Your task to perform on an android device: Empty the shopping cart on amazon.com. Search for razer naga on amazon.com, select the first entry, and add it to the cart. Image 0: 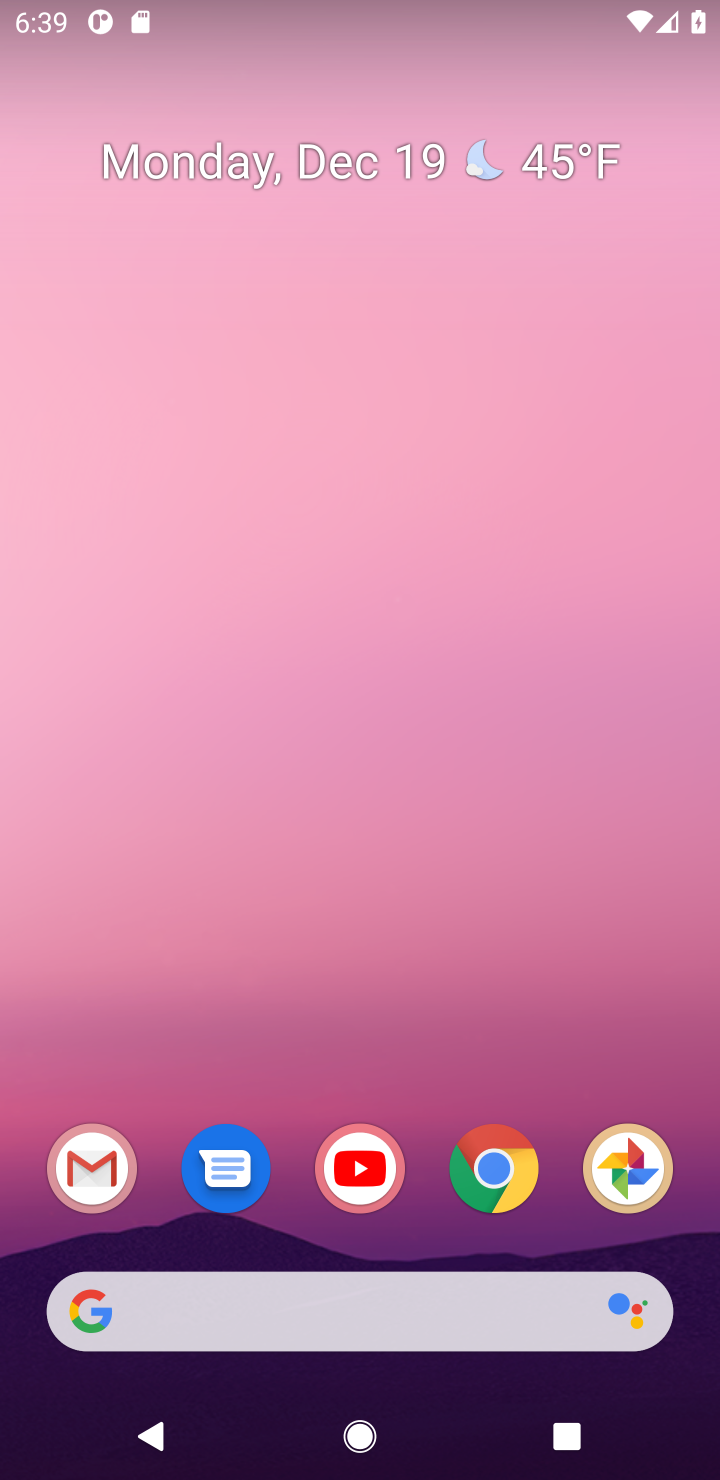
Step 0: click (497, 1179)
Your task to perform on an android device: Empty the shopping cart on amazon.com. Search for razer naga on amazon.com, select the first entry, and add it to the cart. Image 1: 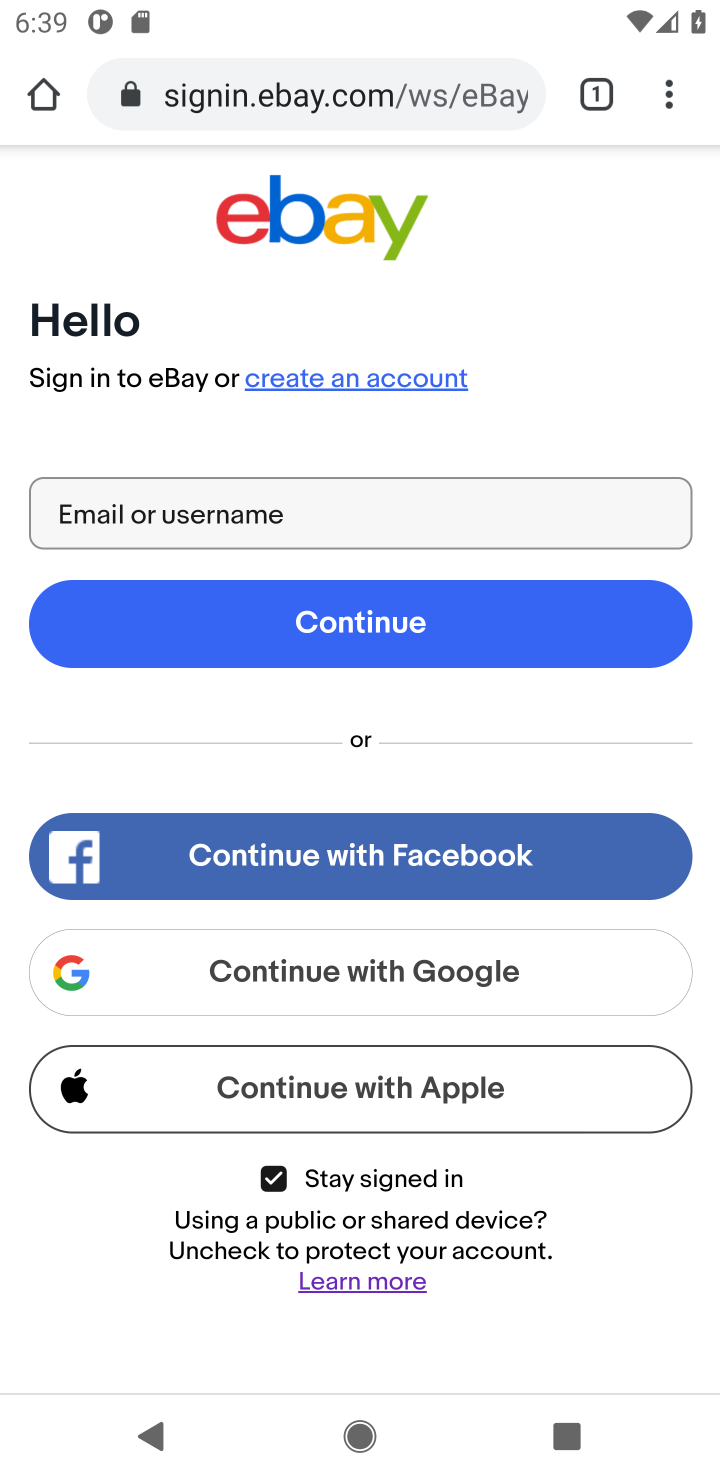
Step 1: click (226, 90)
Your task to perform on an android device: Empty the shopping cart on amazon.com. Search for razer naga on amazon.com, select the first entry, and add it to the cart. Image 2: 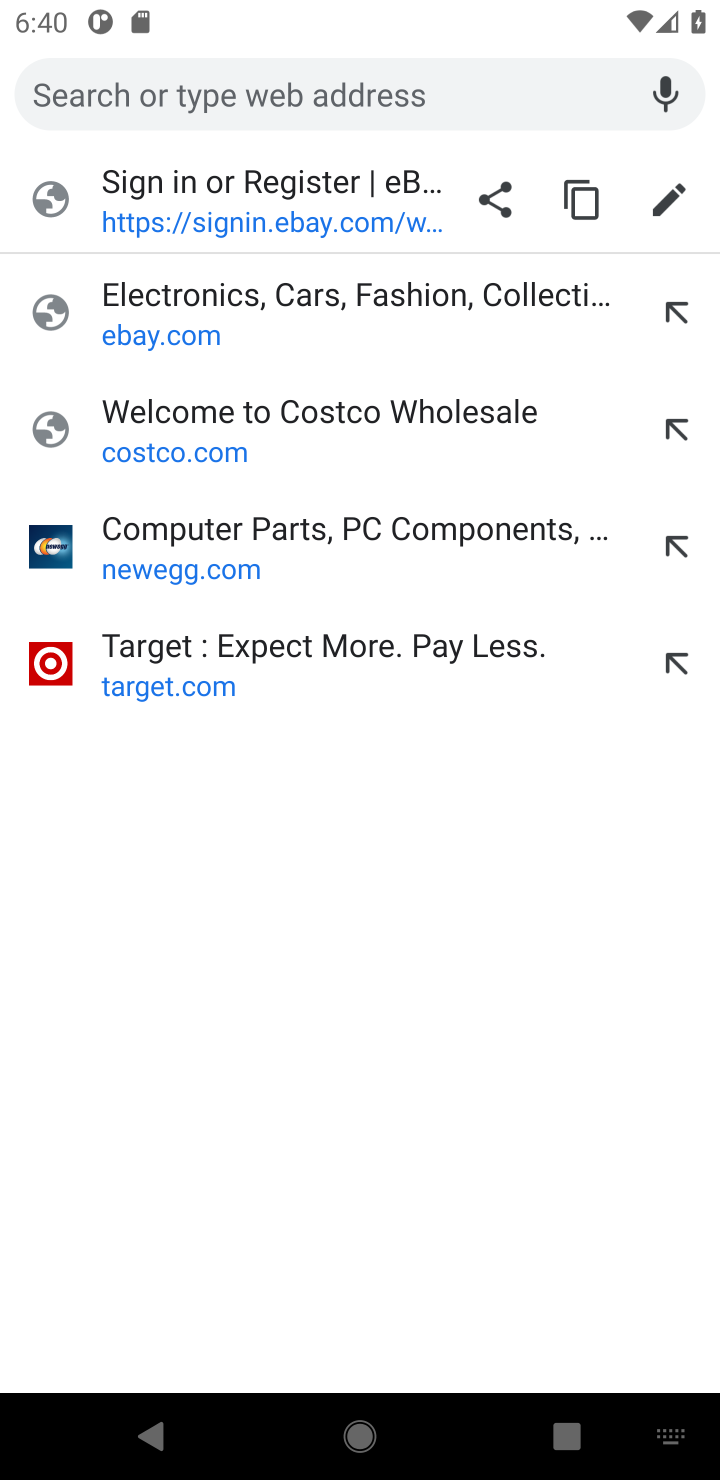
Step 2: type "amazon.com"
Your task to perform on an android device: Empty the shopping cart on amazon.com. Search for razer naga on amazon.com, select the first entry, and add it to the cart. Image 3: 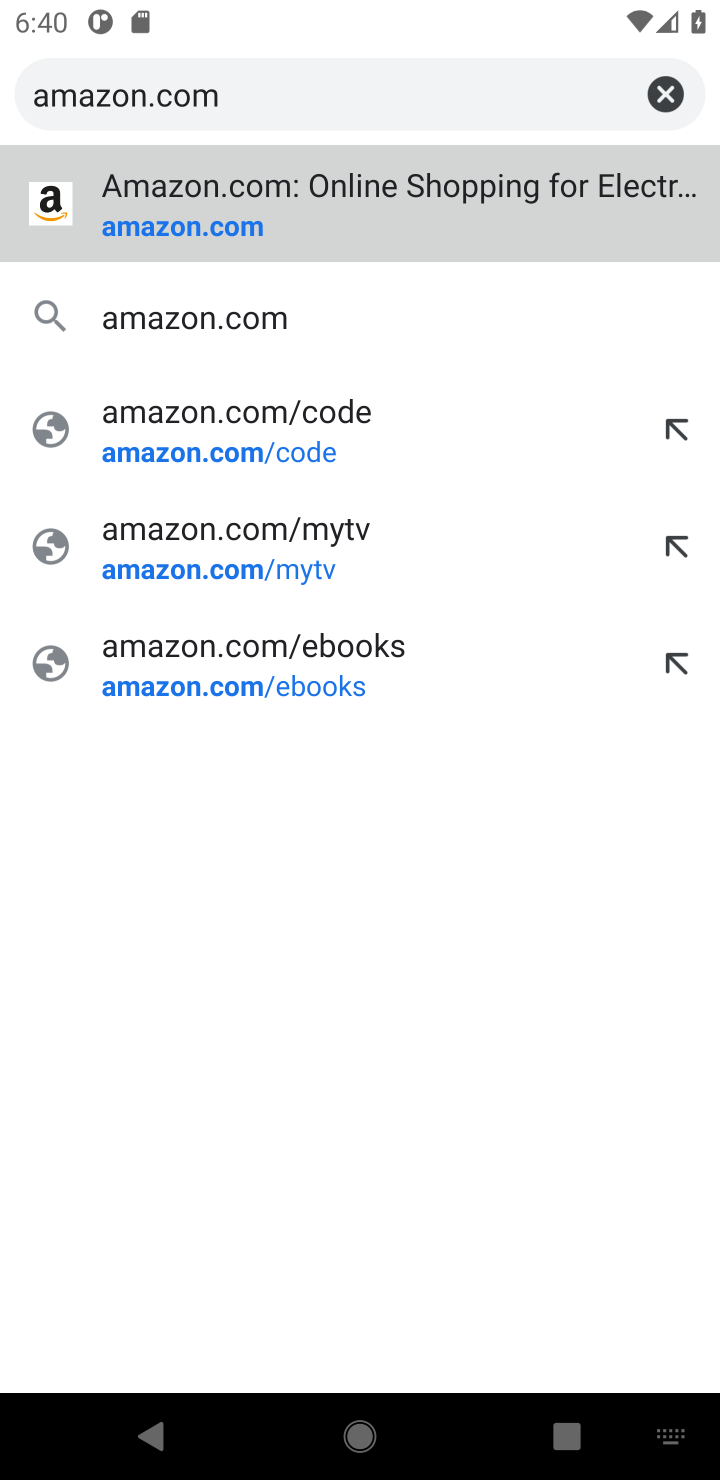
Step 3: click (147, 232)
Your task to perform on an android device: Empty the shopping cart on amazon.com. Search for razer naga on amazon.com, select the first entry, and add it to the cart. Image 4: 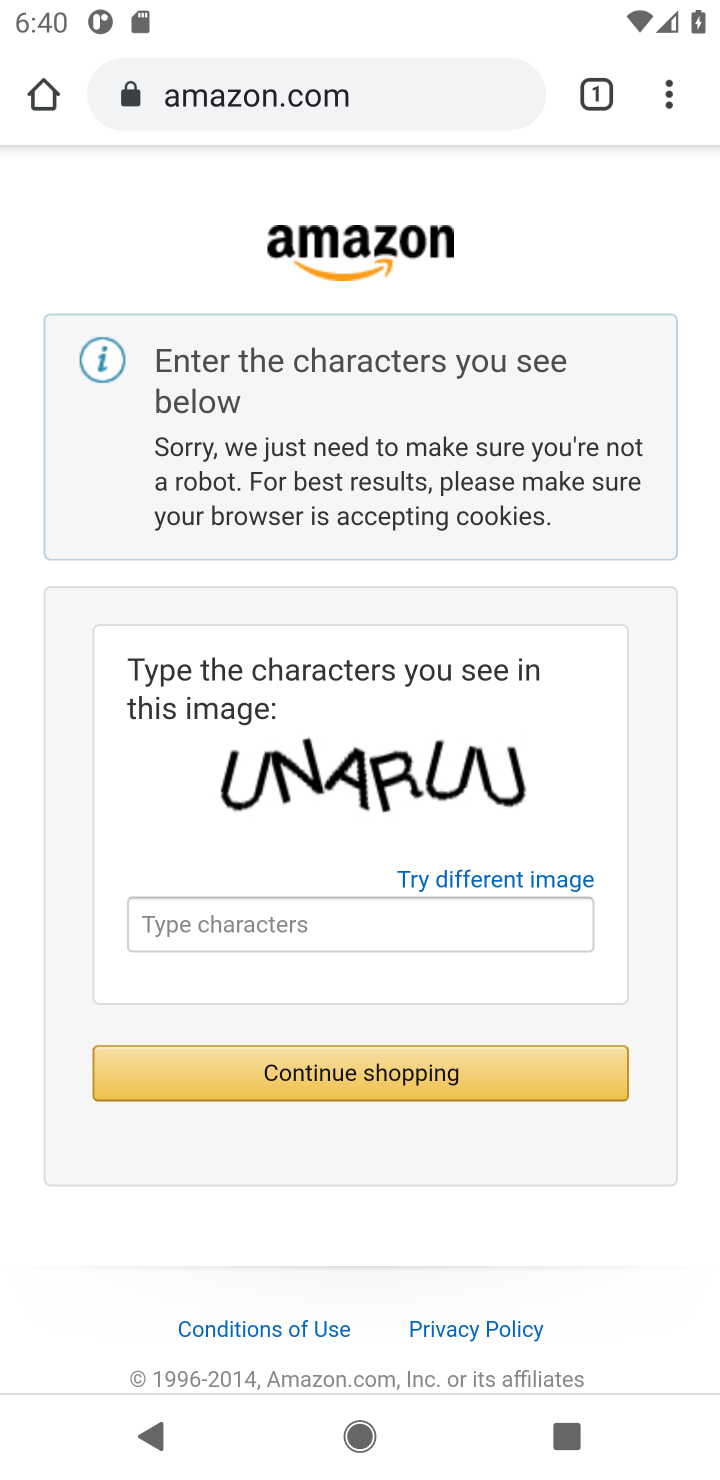
Step 4: click (228, 920)
Your task to perform on an android device: Empty the shopping cart on amazon.com. Search for razer naga on amazon.com, select the first entry, and add it to the cart. Image 5: 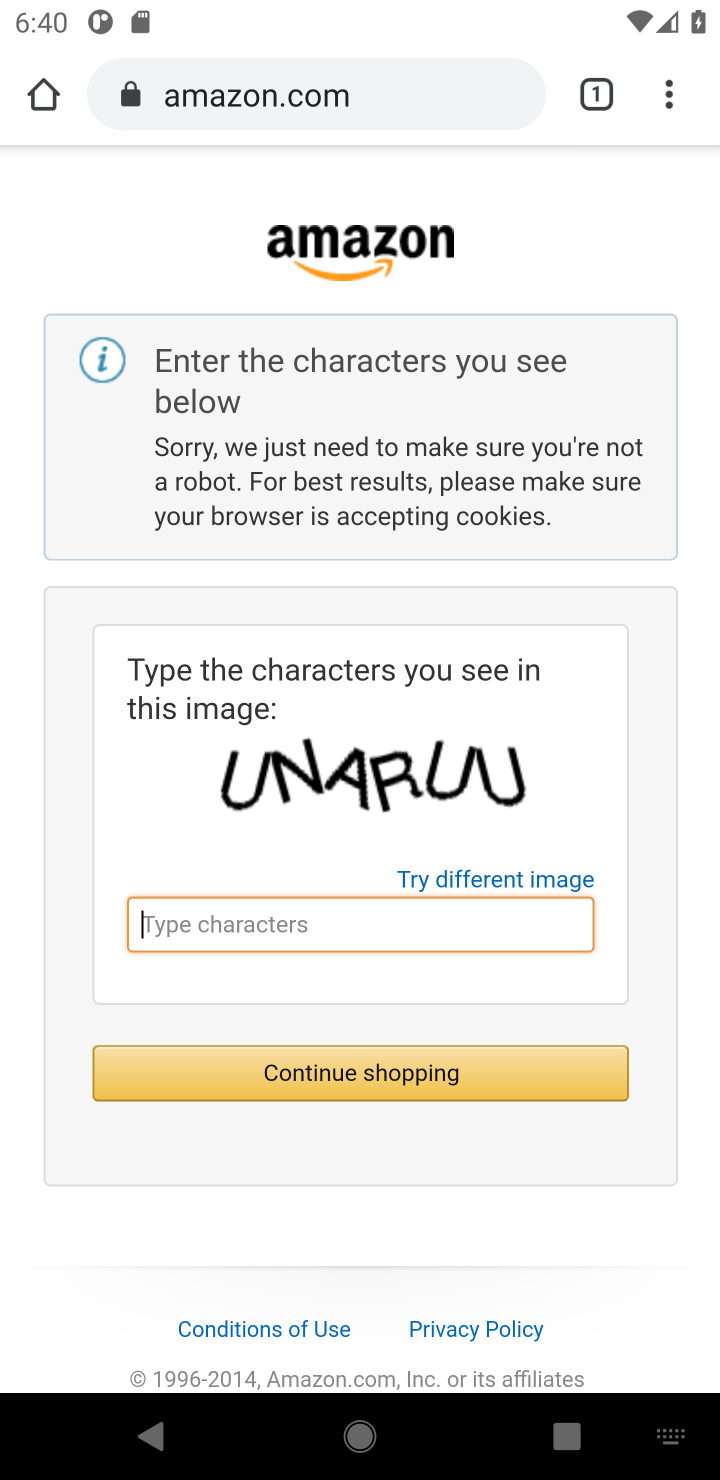
Step 5: type "UNARUU"
Your task to perform on an android device: Empty the shopping cart on amazon.com. Search for razer naga on amazon.com, select the first entry, and add it to the cart. Image 6: 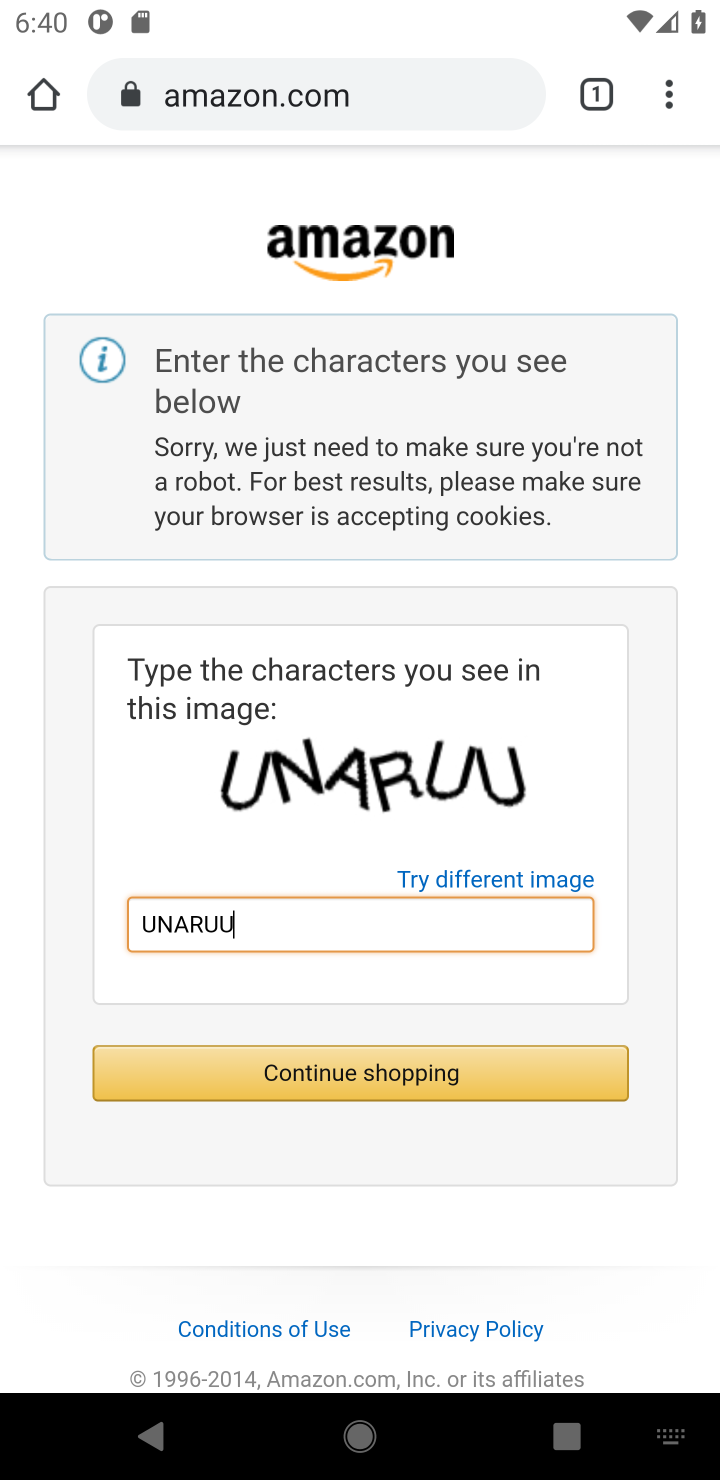
Step 6: click (290, 1069)
Your task to perform on an android device: Empty the shopping cart on amazon.com. Search for razer naga on amazon.com, select the first entry, and add it to the cart. Image 7: 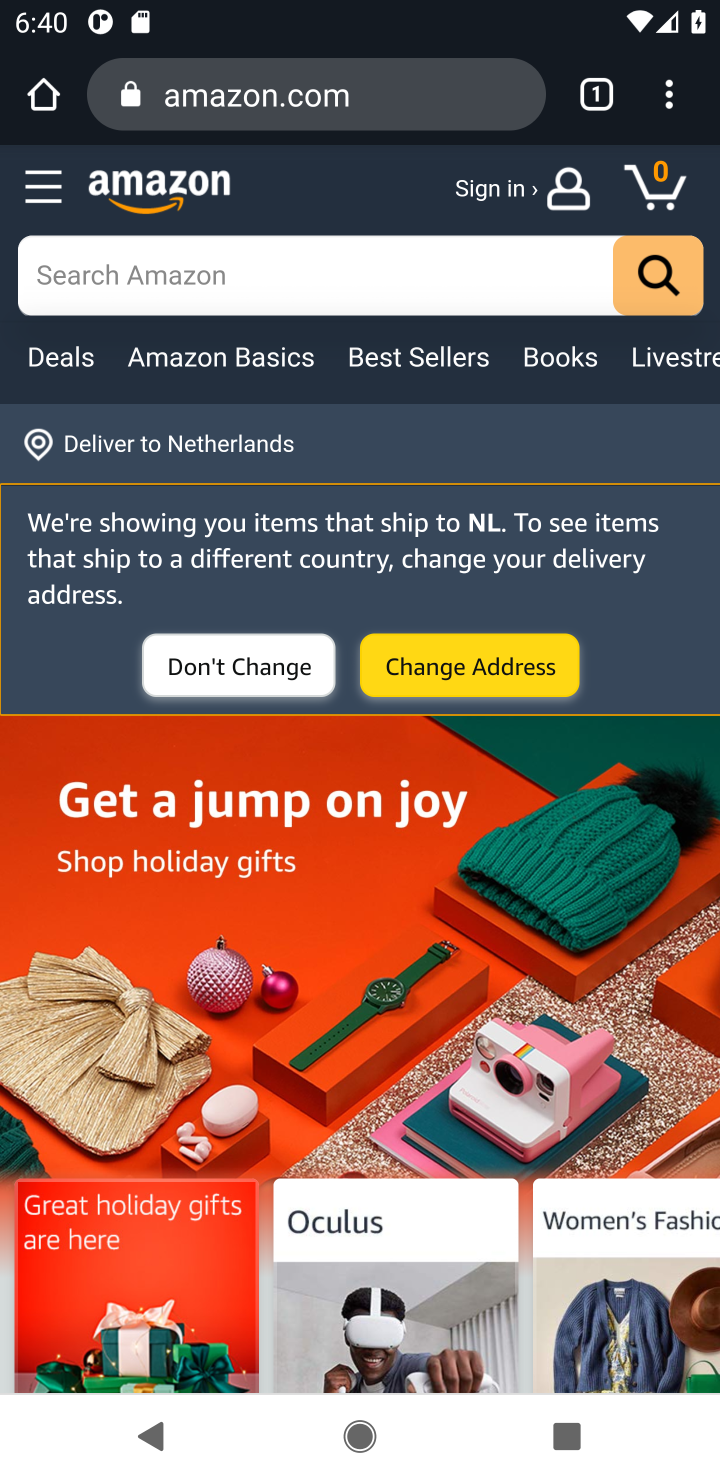
Step 7: click (658, 196)
Your task to perform on an android device: Empty the shopping cart on amazon.com. Search for razer naga on amazon.com, select the first entry, and add it to the cart. Image 8: 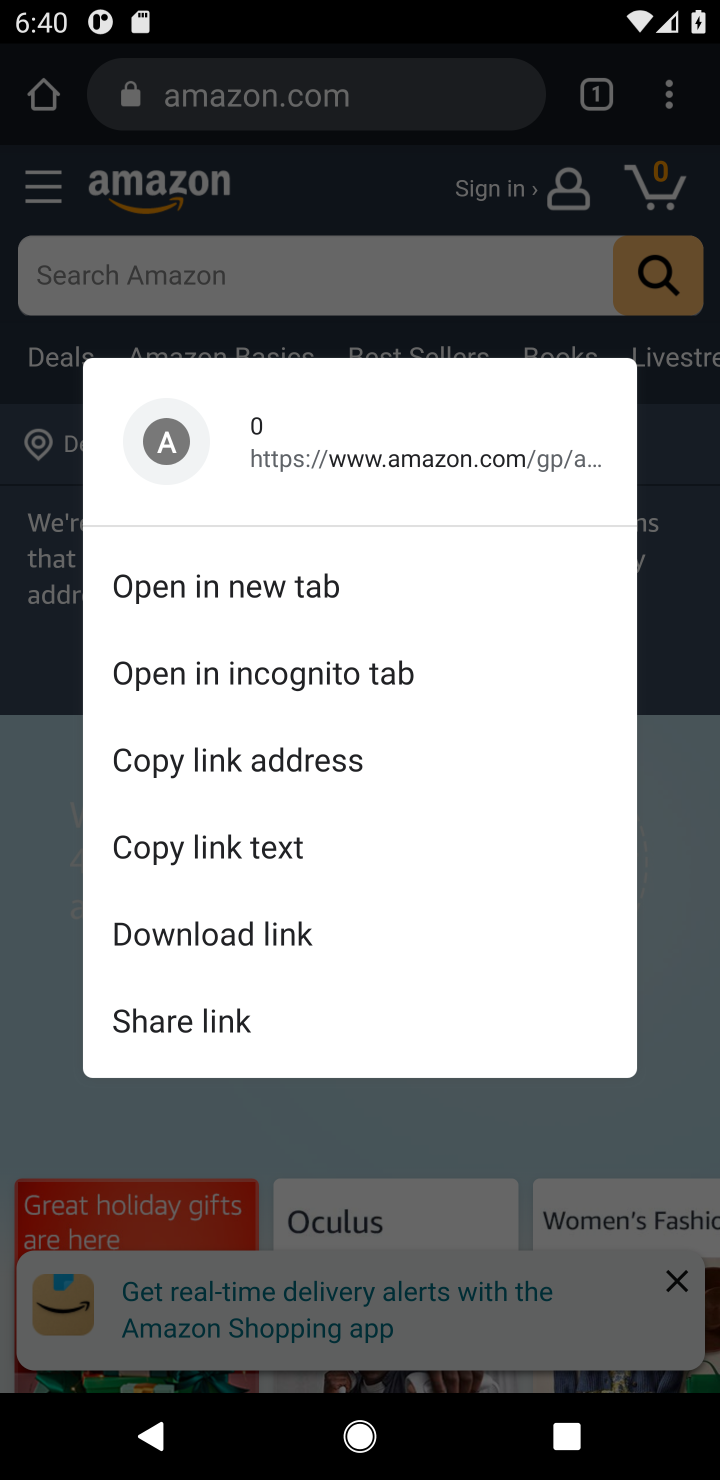
Step 8: click (661, 197)
Your task to perform on an android device: Empty the shopping cart on amazon.com. Search for razer naga on amazon.com, select the first entry, and add it to the cart. Image 9: 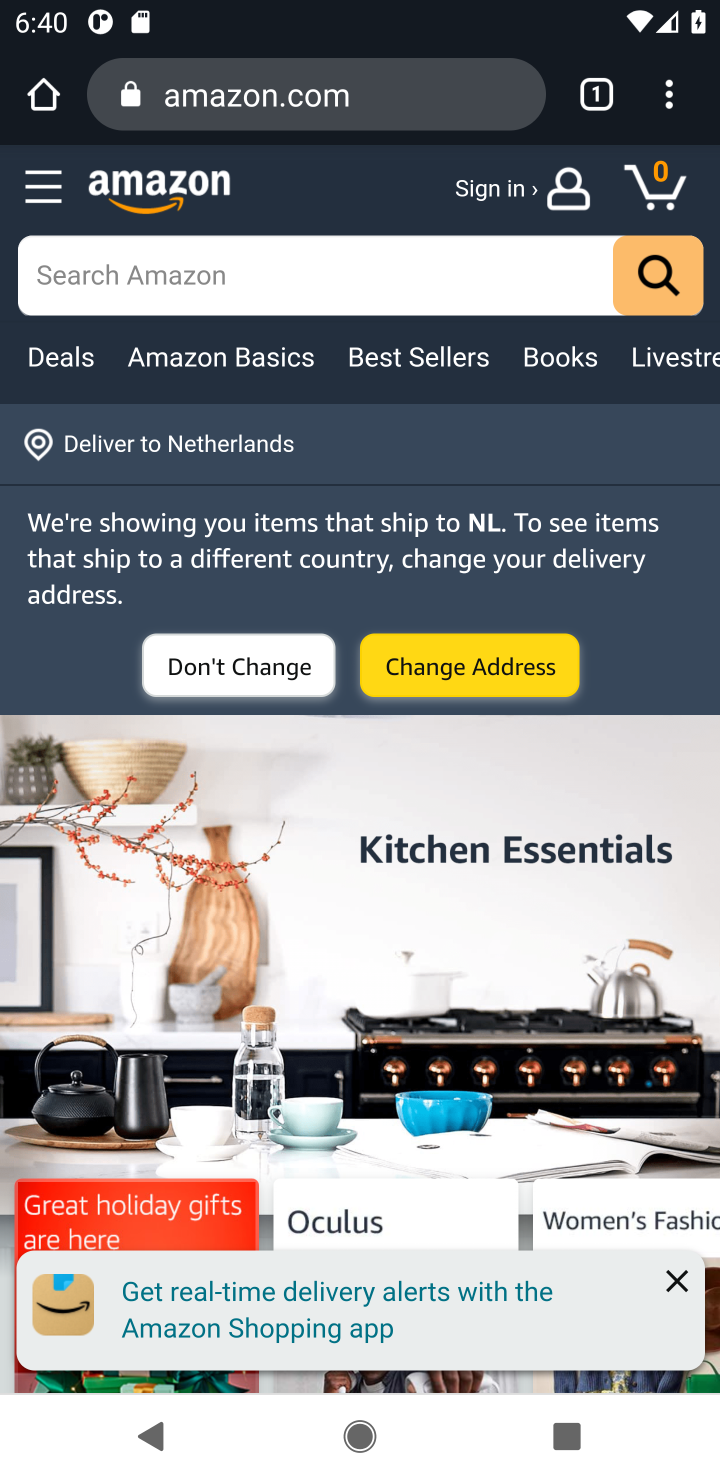
Step 9: click (661, 197)
Your task to perform on an android device: Empty the shopping cart on amazon.com. Search for razer naga on amazon.com, select the first entry, and add it to the cart. Image 10: 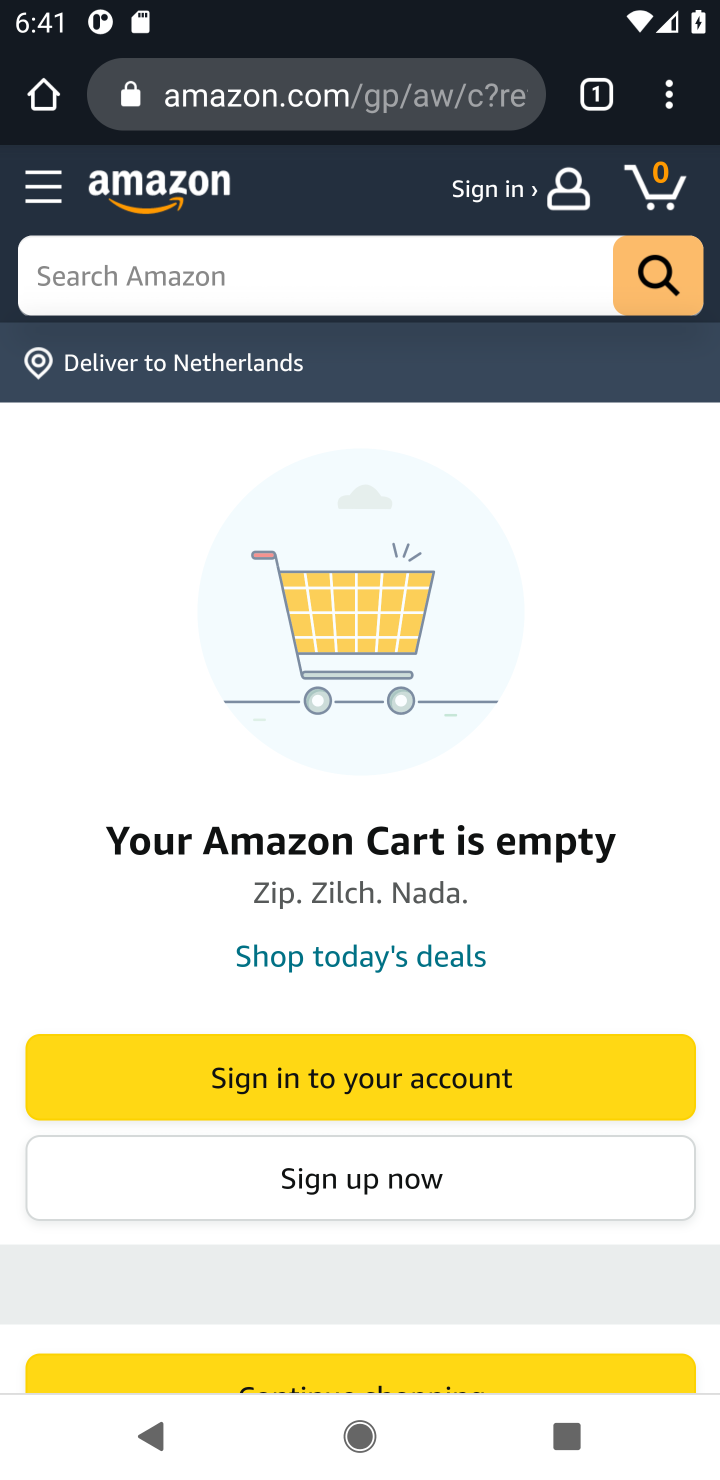
Step 10: click (162, 289)
Your task to perform on an android device: Empty the shopping cart on amazon.com. Search for razer naga on amazon.com, select the first entry, and add it to the cart. Image 11: 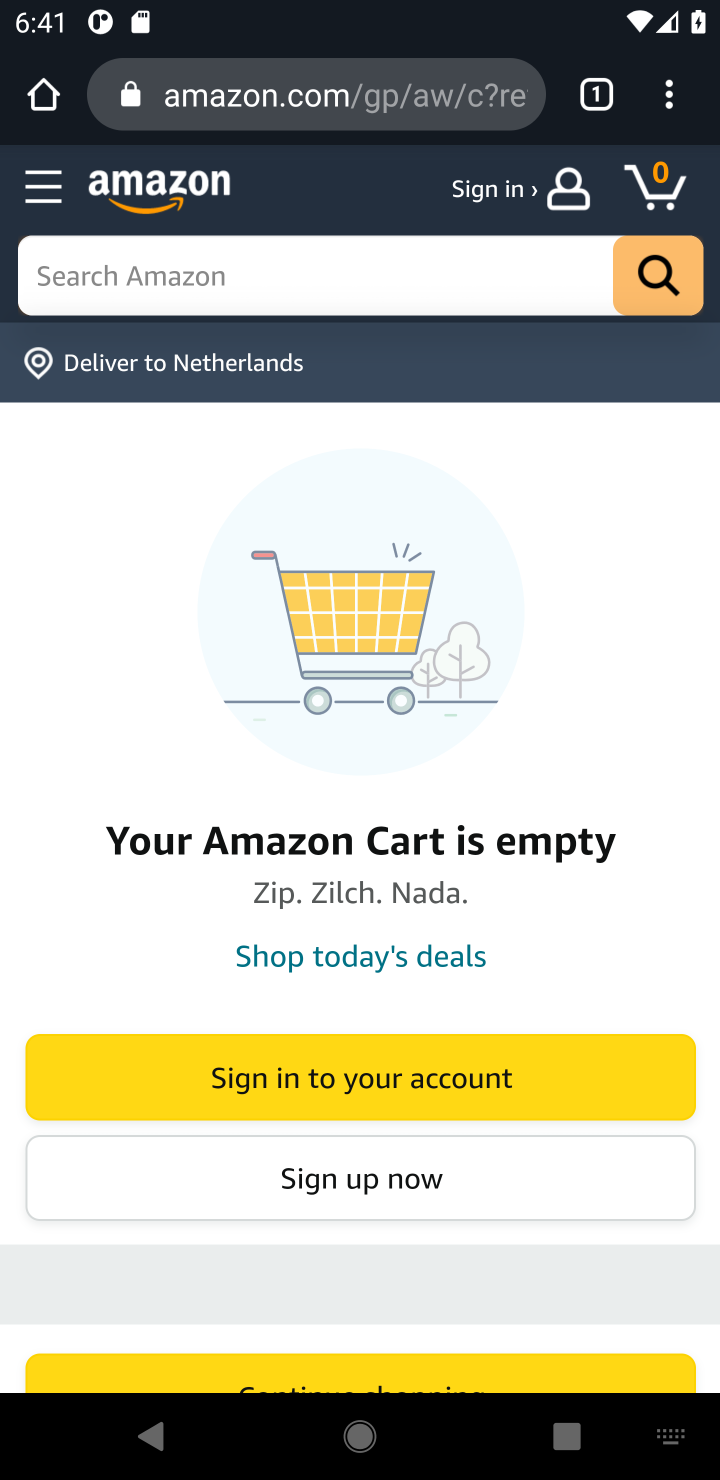
Step 11: type "razer naga"
Your task to perform on an android device: Empty the shopping cart on amazon.com. Search for razer naga on amazon.com, select the first entry, and add it to the cart. Image 12: 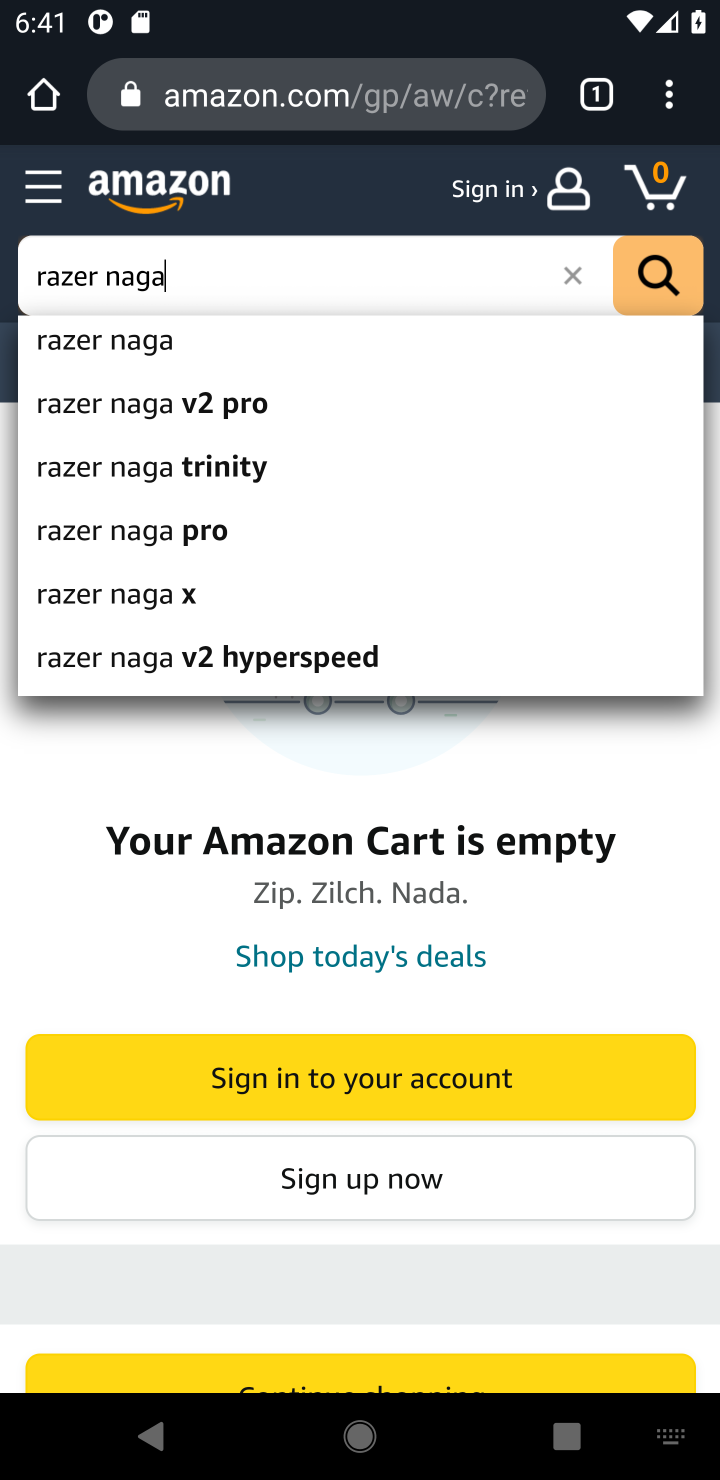
Step 12: click (667, 279)
Your task to perform on an android device: Empty the shopping cart on amazon.com. Search for razer naga on amazon.com, select the first entry, and add it to the cart. Image 13: 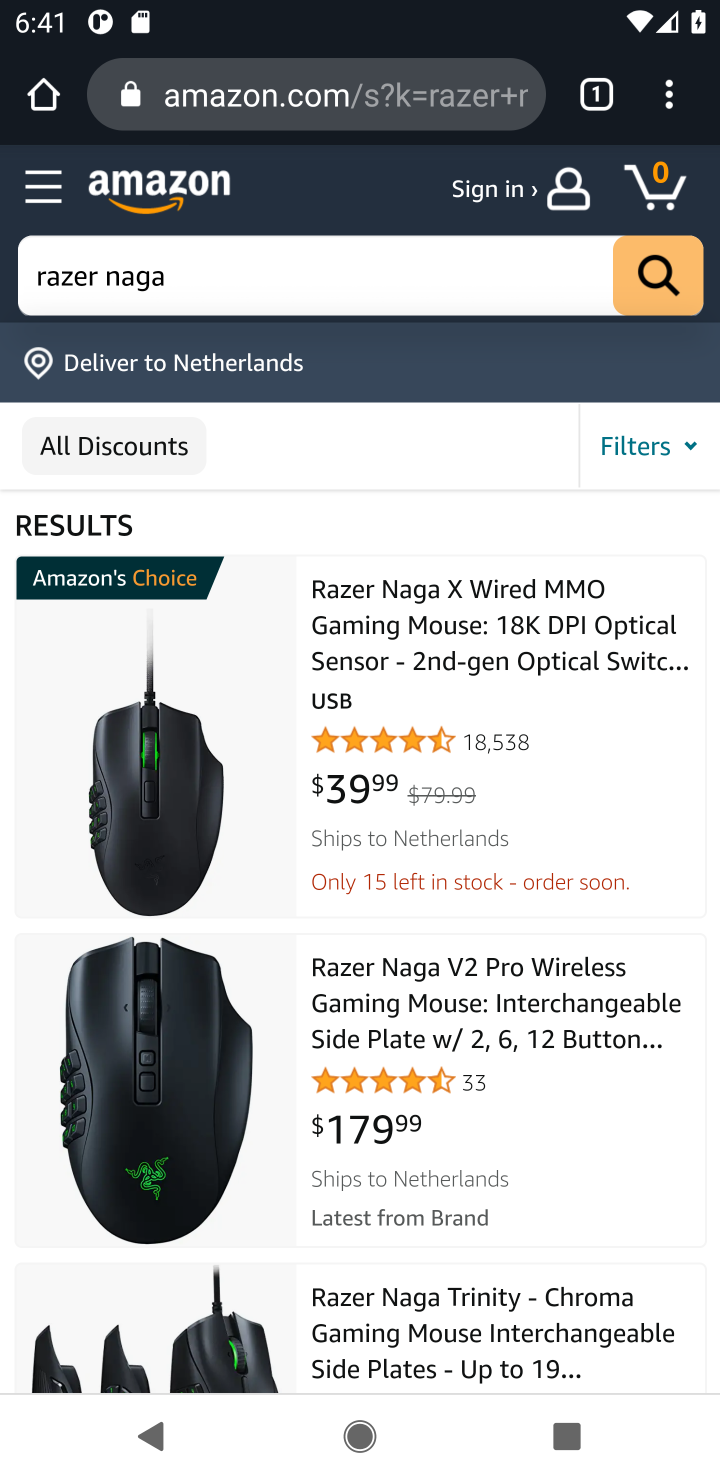
Step 13: click (393, 642)
Your task to perform on an android device: Empty the shopping cart on amazon.com. Search for razer naga on amazon.com, select the first entry, and add it to the cart. Image 14: 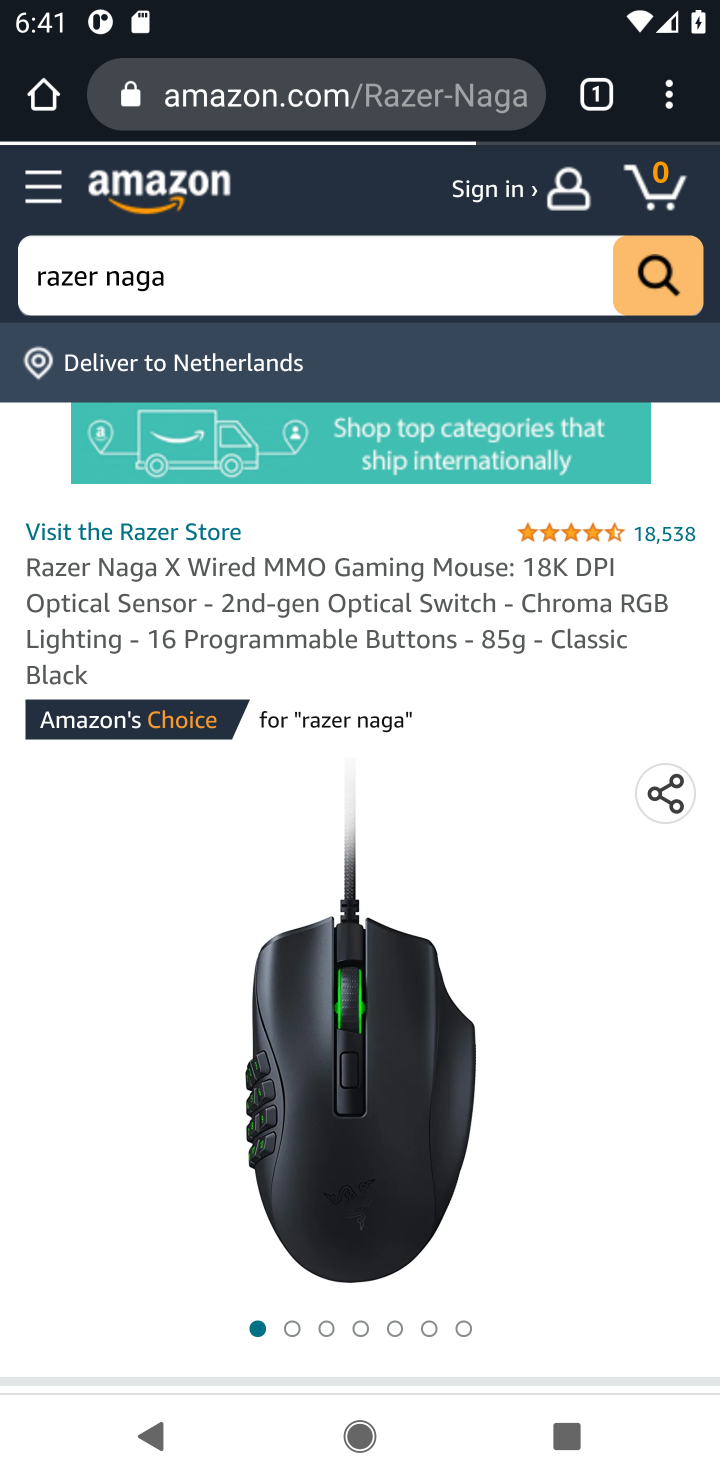
Step 14: drag from (325, 926) to (336, 446)
Your task to perform on an android device: Empty the shopping cart on amazon.com. Search for razer naga on amazon.com, select the first entry, and add it to the cart. Image 15: 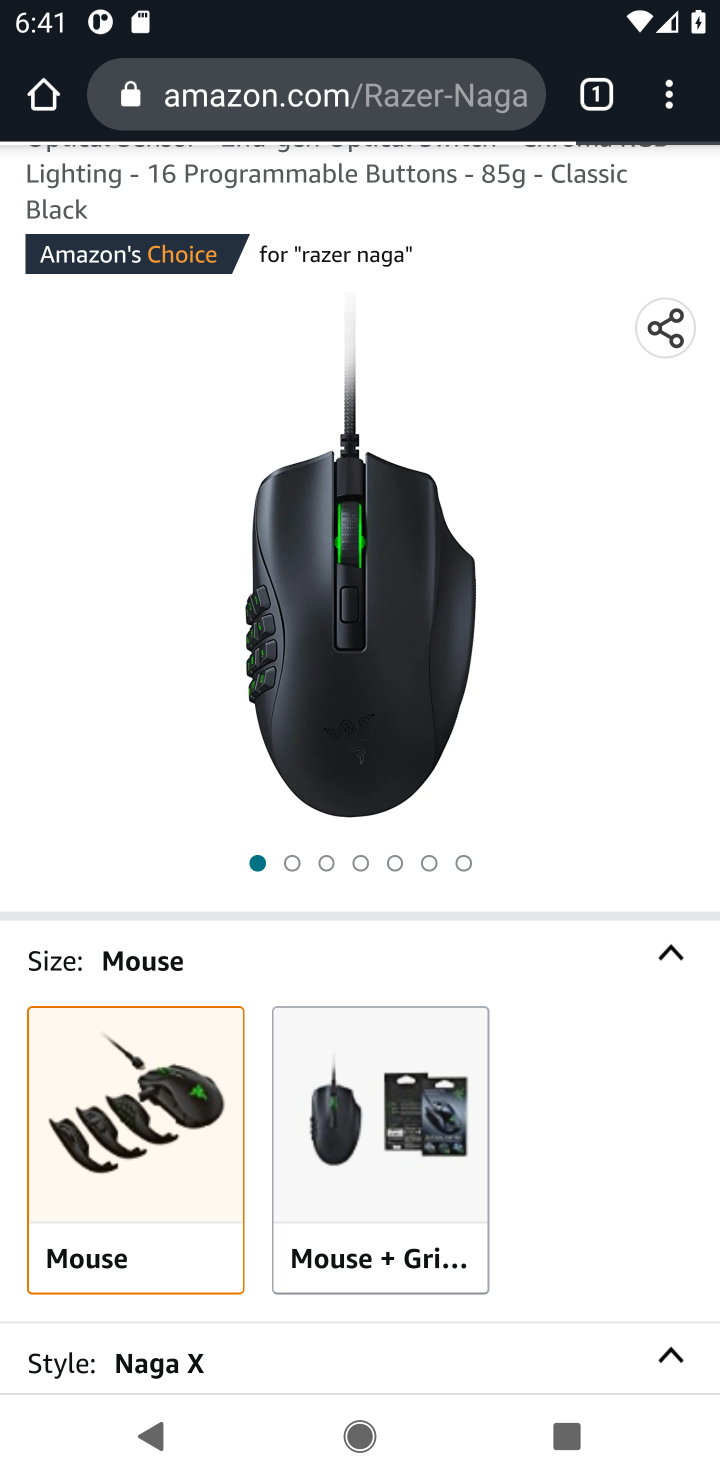
Step 15: drag from (249, 900) to (269, 379)
Your task to perform on an android device: Empty the shopping cart on amazon.com. Search for razer naga on amazon.com, select the first entry, and add it to the cart. Image 16: 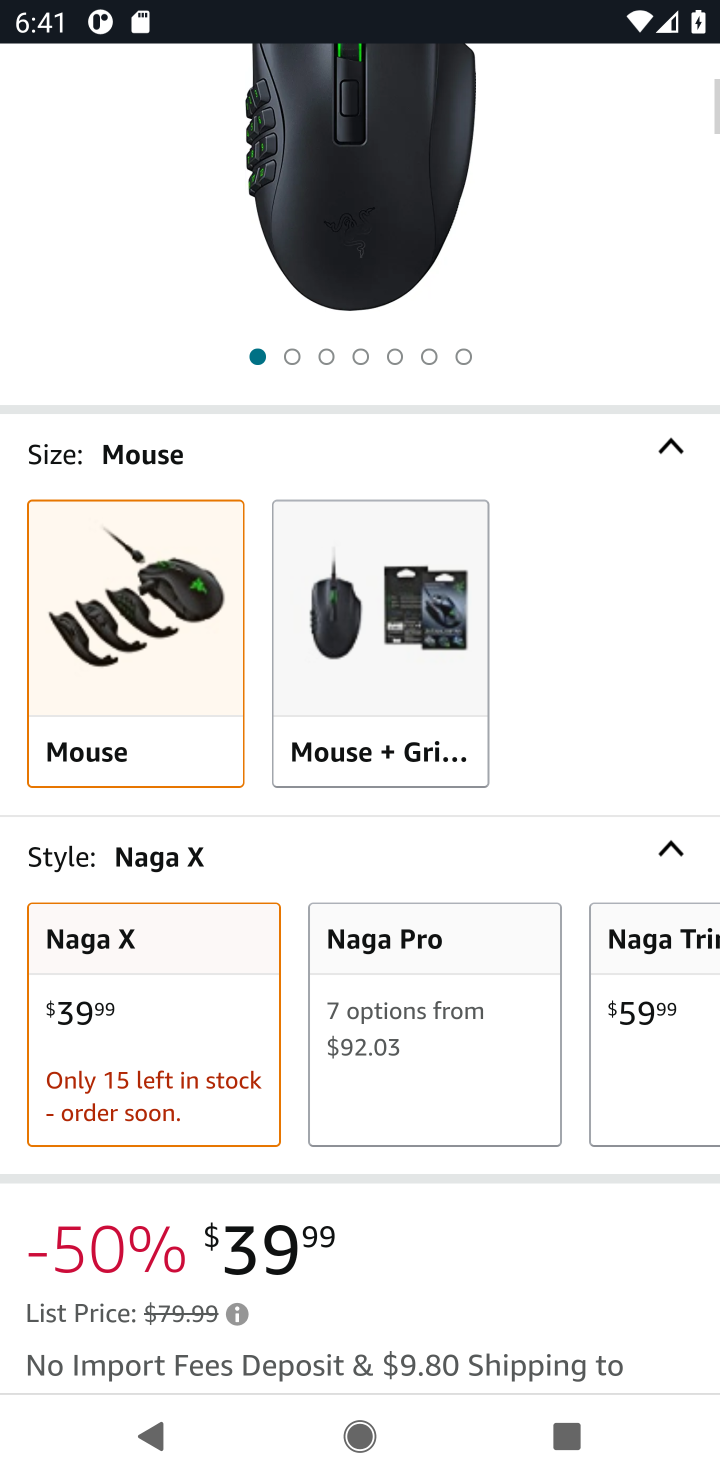
Step 16: drag from (297, 1052) to (297, 552)
Your task to perform on an android device: Empty the shopping cart on amazon.com. Search for razer naga on amazon.com, select the first entry, and add it to the cart. Image 17: 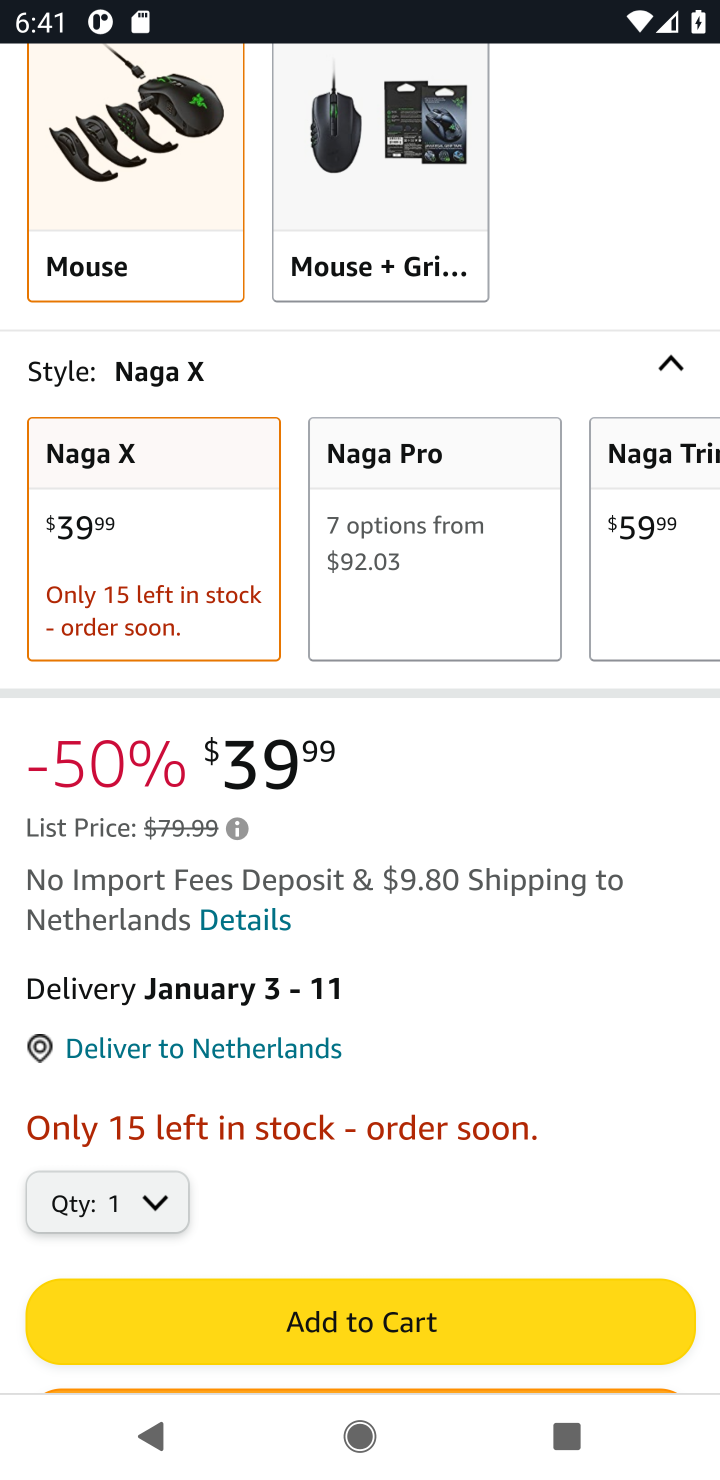
Step 17: click (289, 1311)
Your task to perform on an android device: Empty the shopping cart on amazon.com. Search for razer naga on amazon.com, select the first entry, and add it to the cart. Image 18: 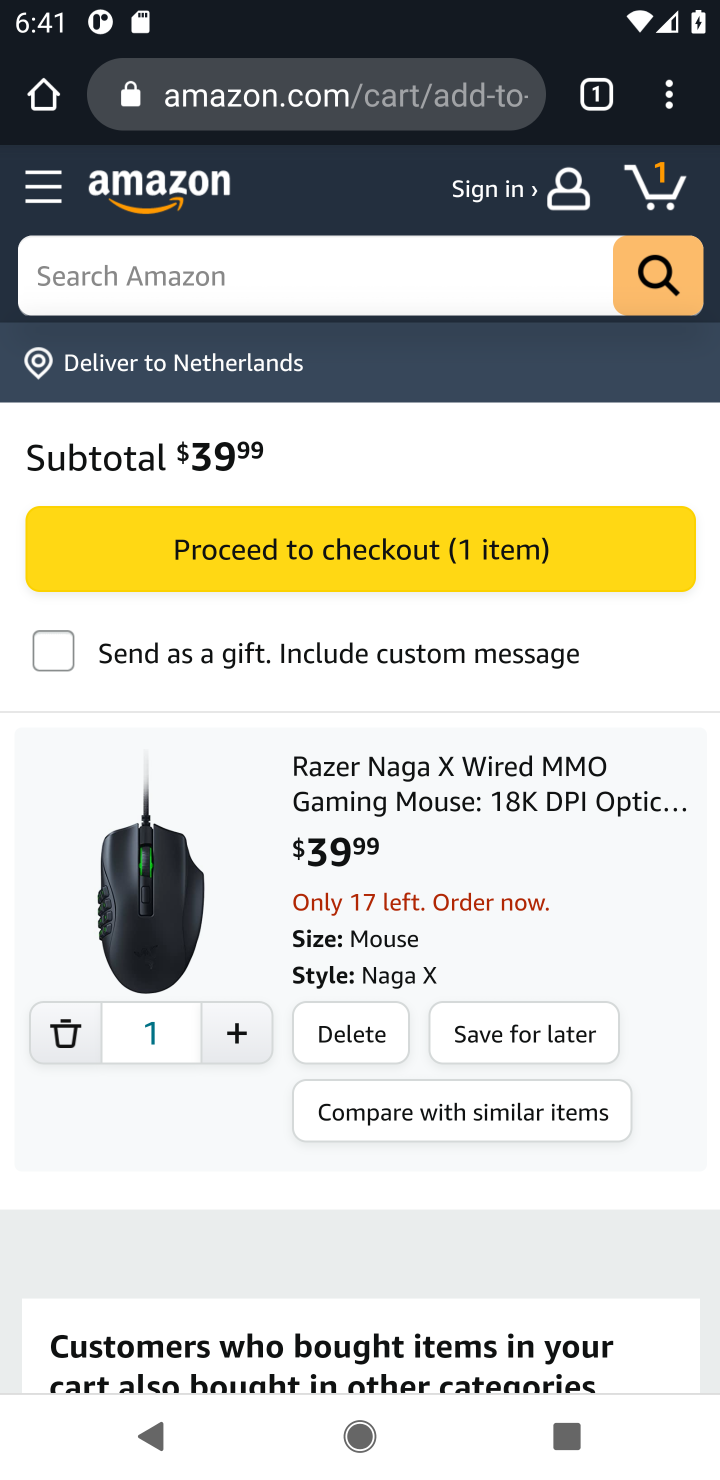
Step 18: task complete